Your task to perform on an android device: manage bookmarks in the chrome app Image 0: 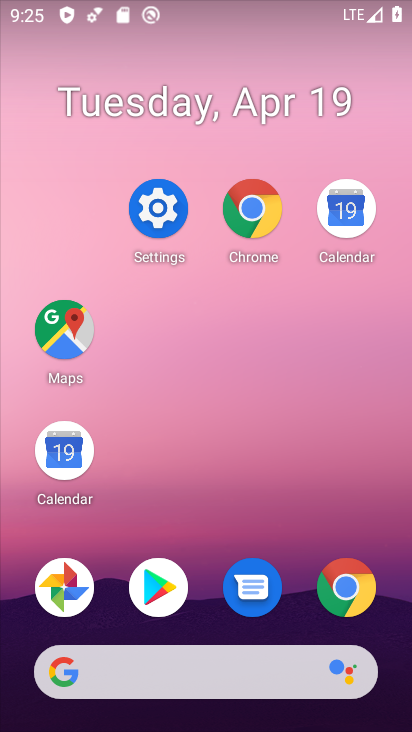
Step 0: drag from (274, 699) to (189, 251)
Your task to perform on an android device: manage bookmarks in the chrome app Image 1: 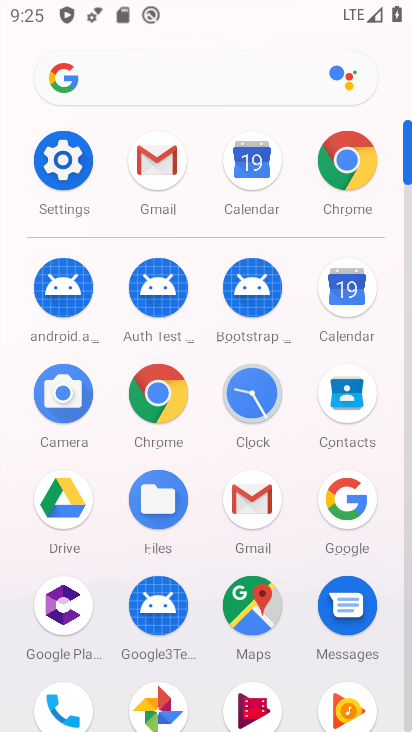
Step 1: click (345, 164)
Your task to perform on an android device: manage bookmarks in the chrome app Image 2: 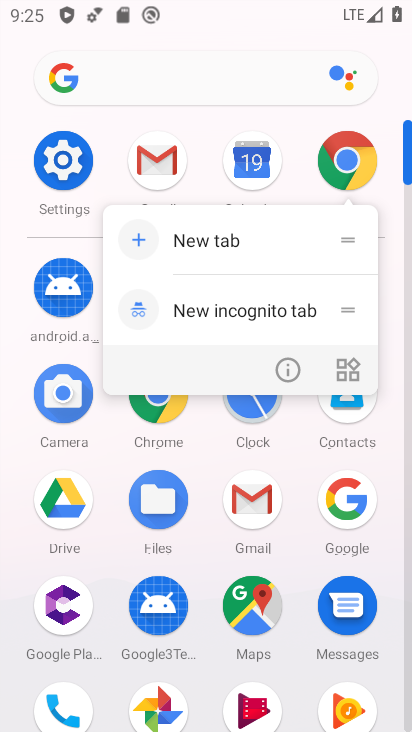
Step 2: click (345, 164)
Your task to perform on an android device: manage bookmarks in the chrome app Image 3: 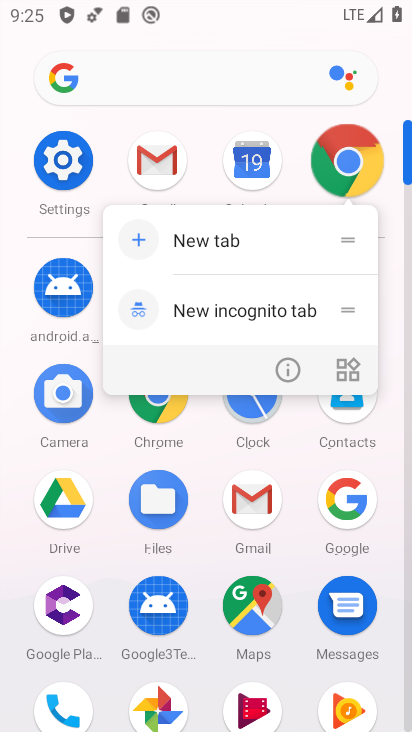
Step 3: click (345, 164)
Your task to perform on an android device: manage bookmarks in the chrome app Image 4: 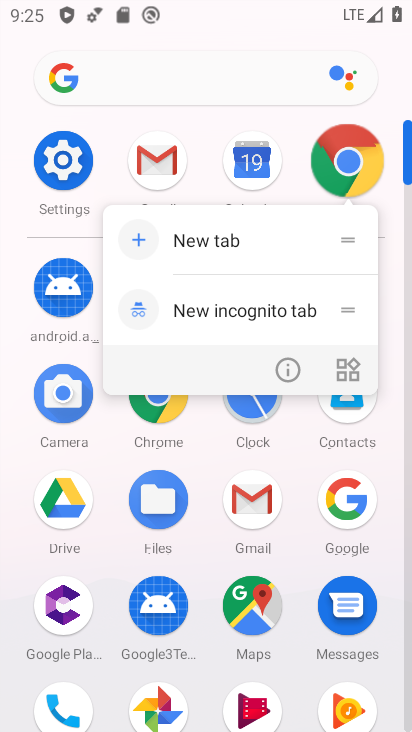
Step 4: click (345, 164)
Your task to perform on an android device: manage bookmarks in the chrome app Image 5: 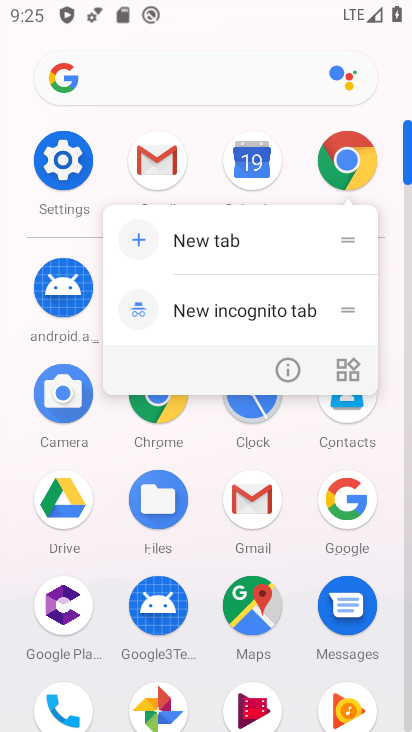
Step 5: click (345, 164)
Your task to perform on an android device: manage bookmarks in the chrome app Image 6: 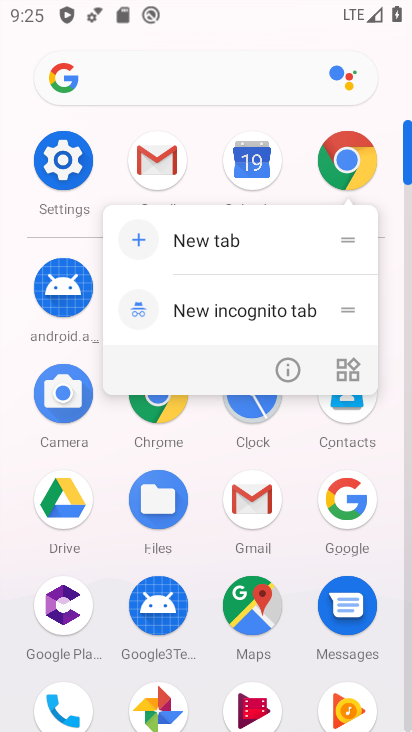
Step 6: click (345, 164)
Your task to perform on an android device: manage bookmarks in the chrome app Image 7: 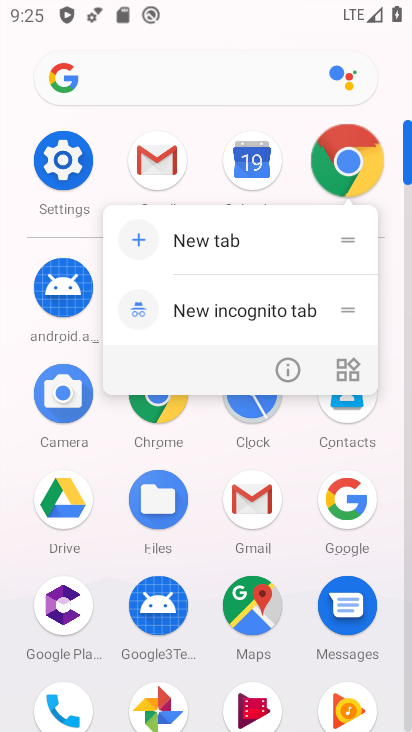
Step 7: click (345, 164)
Your task to perform on an android device: manage bookmarks in the chrome app Image 8: 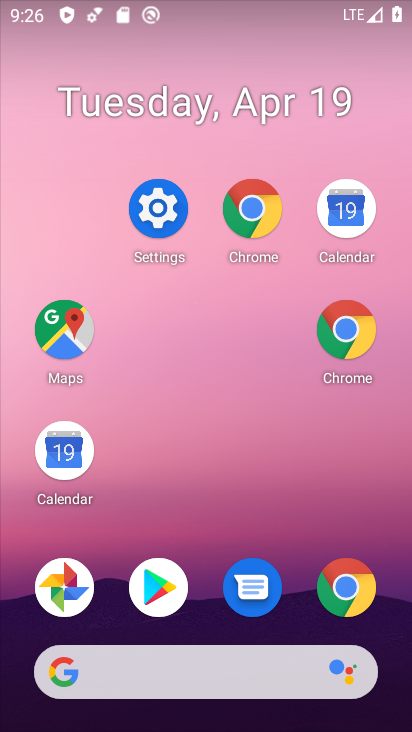
Step 8: click (338, 581)
Your task to perform on an android device: manage bookmarks in the chrome app Image 9: 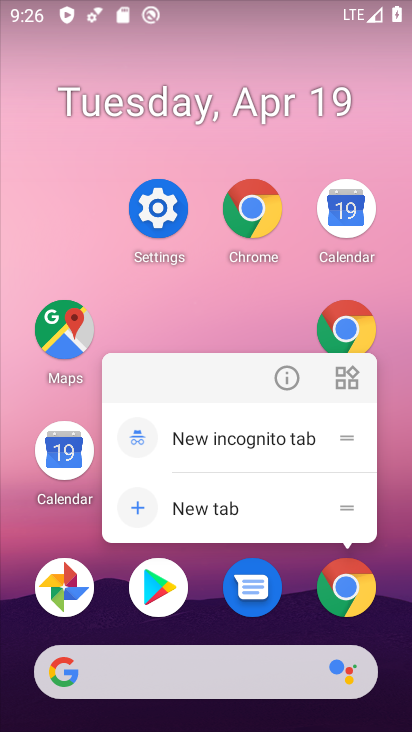
Step 9: click (350, 336)
Your task to perform on an android device: manage bookmarks in the chrome app Image 10: 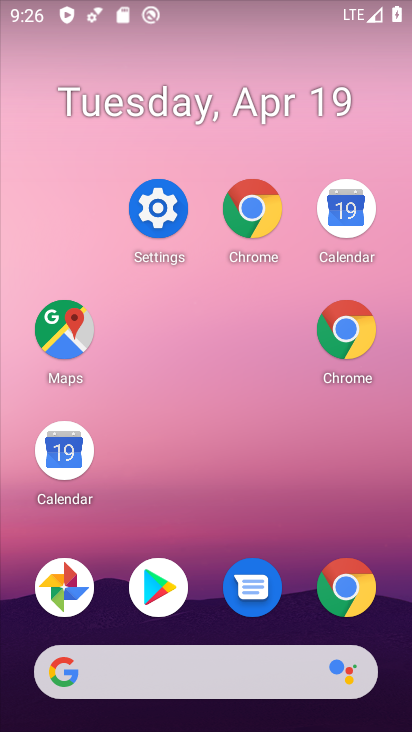
Step 10: click (350, 336)
Your task to perform on an android device: manage bookmarks in the chrome app Image 11: 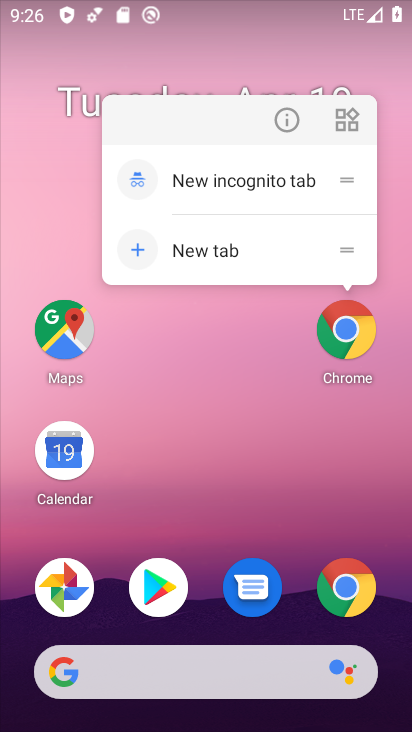
Step 11: drag from (365, 555) to (182, 32)
Your task to perform on an android device: manage bookmarks in the chrome app Image 12: 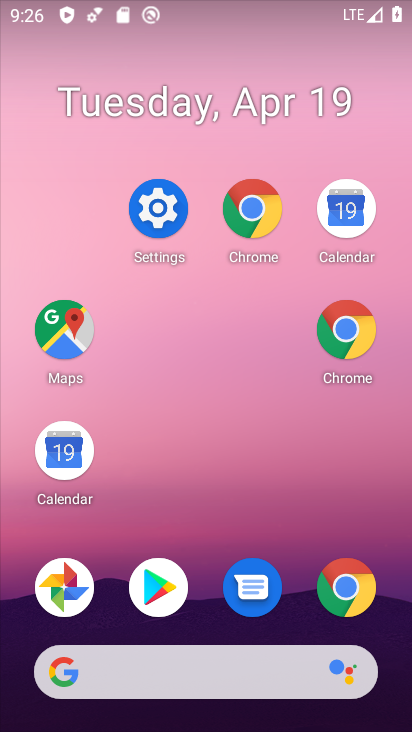
Step 12: click (340, 321)
Your task to perform on an android device: manage bookmarks in the chrome app Image 13: 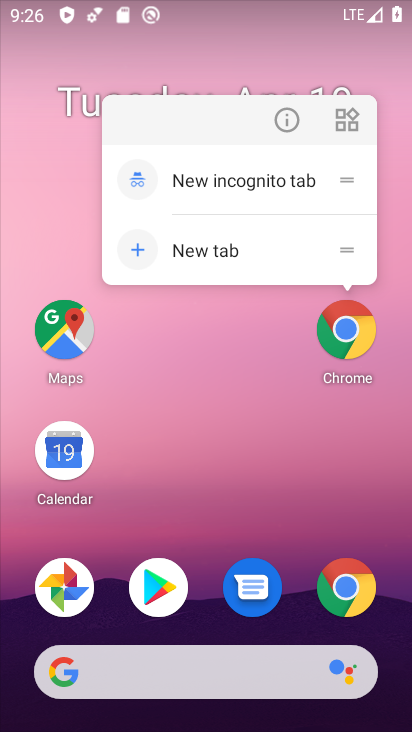
Step 13: click (349, 330)
Your task to perform on an android device: manage bookmarks in the chrome app Image 14: 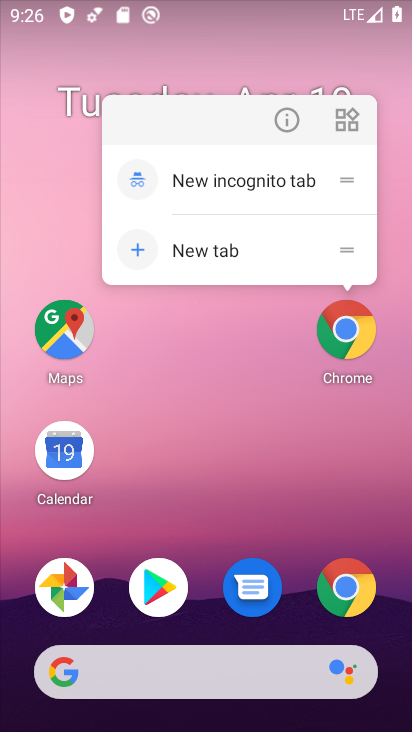
Step 14: click (264, 423)
Your task to perform on an android device: manage bookmarks in the chrome app Image 15: 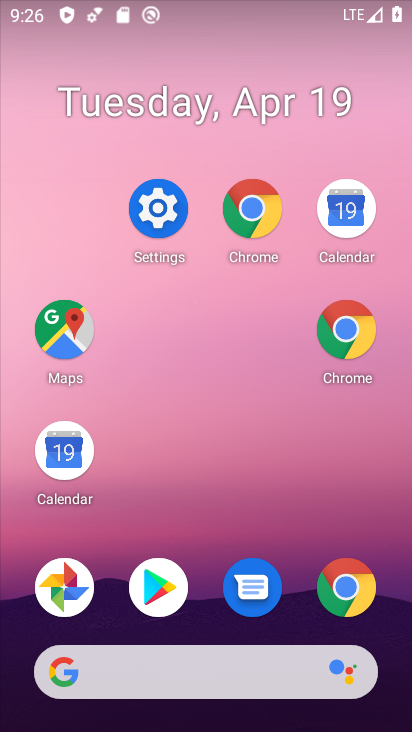
Step 15: click (263, 422)
Your task to perform on an android device: manage bookmarks in the chrome app Image 16: 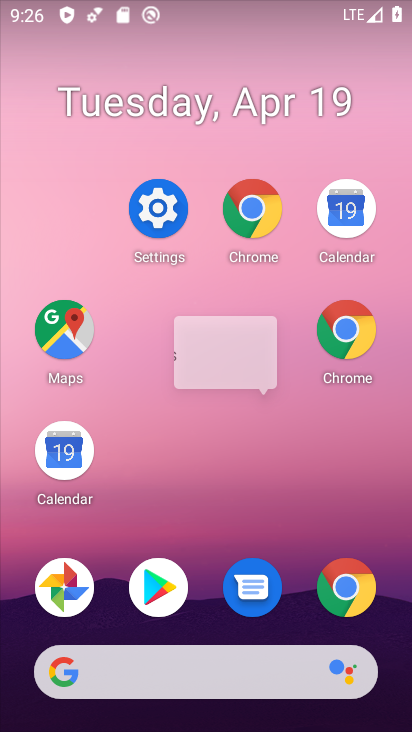
Step 16: click (166, 27)
Your task to perform on an android device: manage bookmarks in the chrome app Image 17: 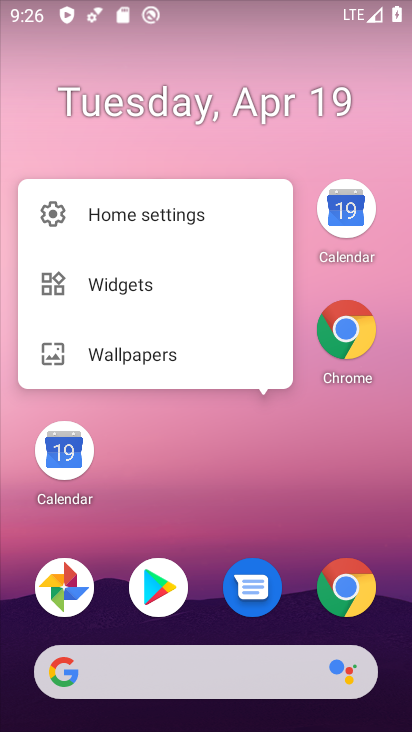
Step 17: click (101, 242)
Your task to perform on an android device: manage bookmarks in the chrome app Image 18: 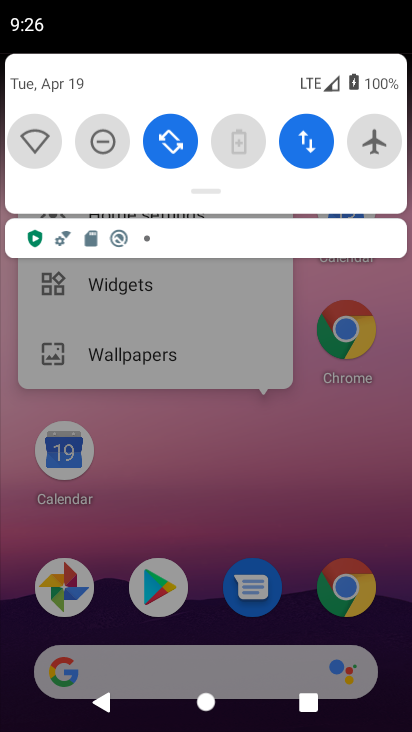
Step 18: drag from (340, 467) to (200, 58)
Your task to perform on an android device: manage bookmarks in the chrome app Image 19: 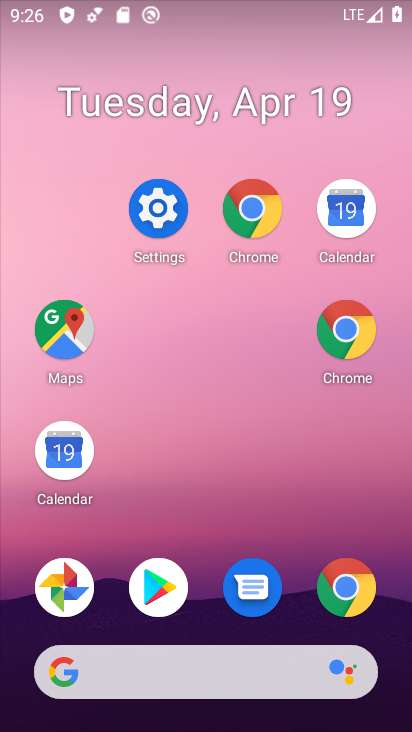
Step 19: drag from (275, 476) to (126, 139)
Your task to perform on an android device: manage bookmarks in the chrome app Image 20: 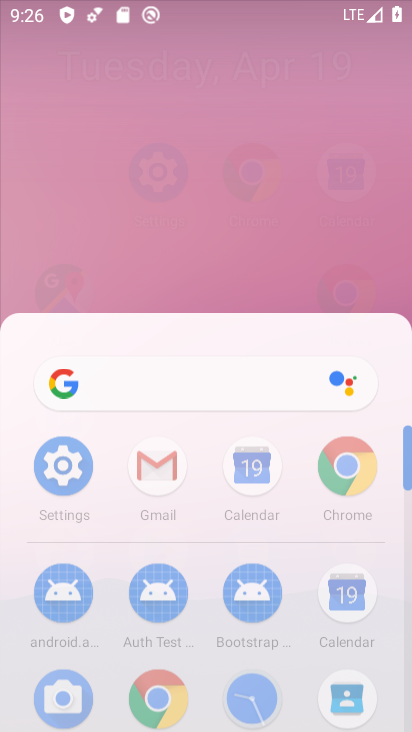
Step 20: drag from (322, 443) to (178, 119)
Your task to perform on an android device: manage bookmarks in the chrome app Image 21: 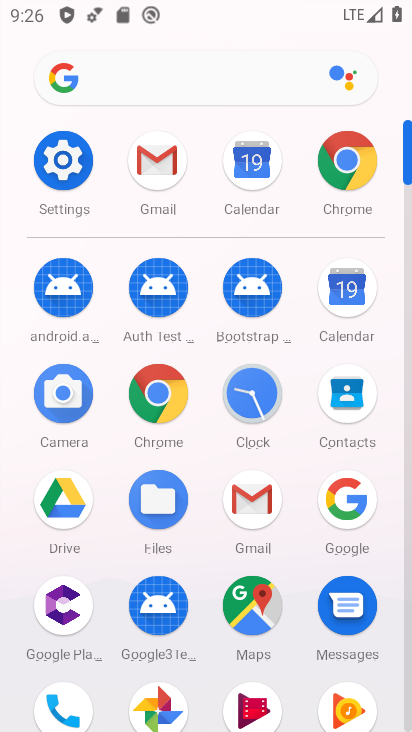
Step 21: click (352, 172)
Your task to perform on an android device: manage bookmarks in the chrome app Image 22: 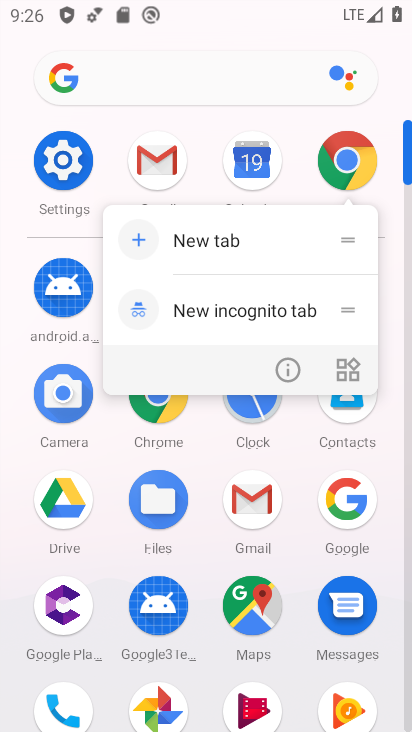
Step 22: click (352, 172)
Your task to perform on an android device: manage bookmarks in the chrome app Image 23: 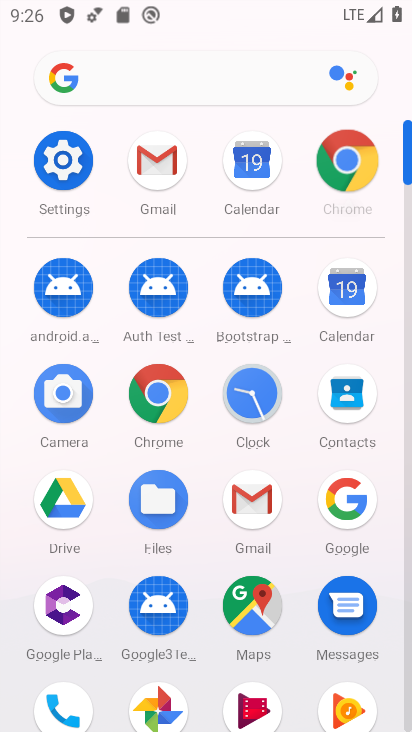
Step 23: click (374, 147)
Your task to perform on an android device: manage bookmarks in the chrome app Image 24: 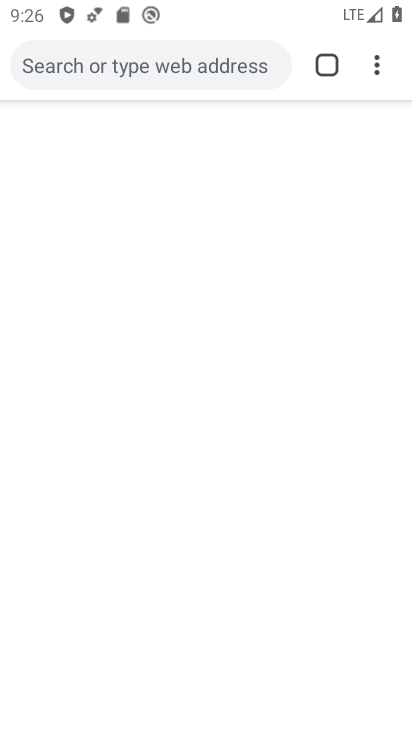
Step 24: click (341, 156)
Your task to perform on an android device: manage bookmarks in the chrome app Image 25: 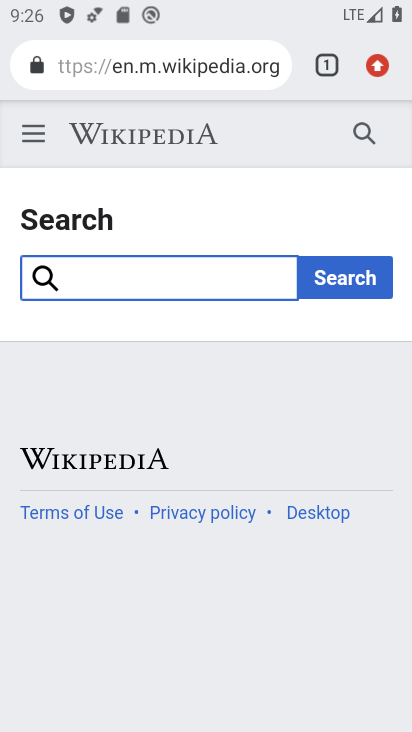
Step 25: press back button
Your task to perform on an android device: manage bookmarks in the chrome app Image 26: 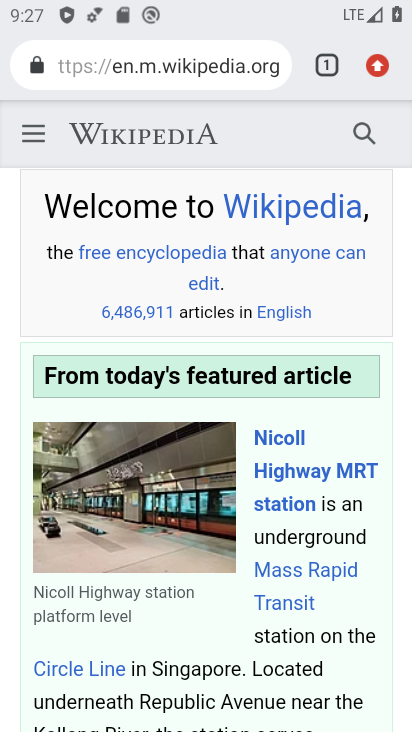
Step 26: press back button
Your task to perform on an android device: manage bookmarks in the chrome app Image 27: 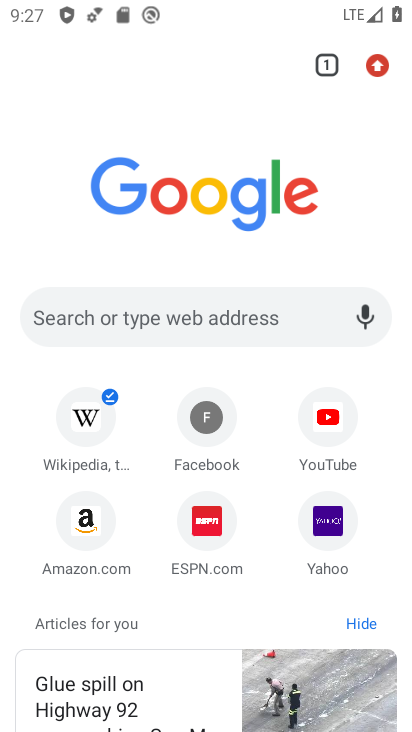
Step 27: click (383, 53)
Your task to perform on an android device: manage bookmarks in the chrome app Image 28: 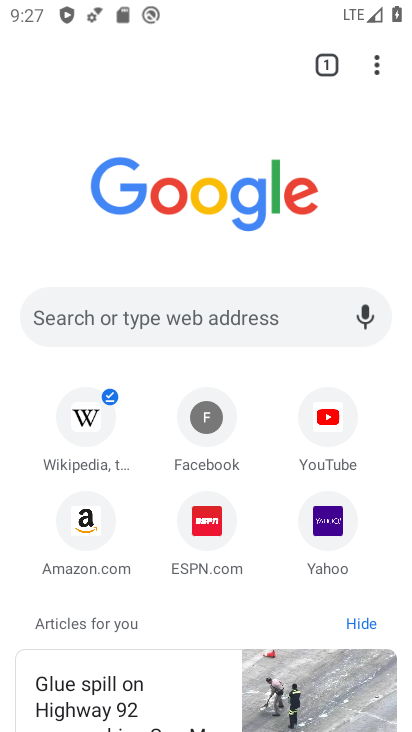
Step 28: click (375, 62)
Your task to perform on an android device: manage bookmarks in the chrome app Image 29: 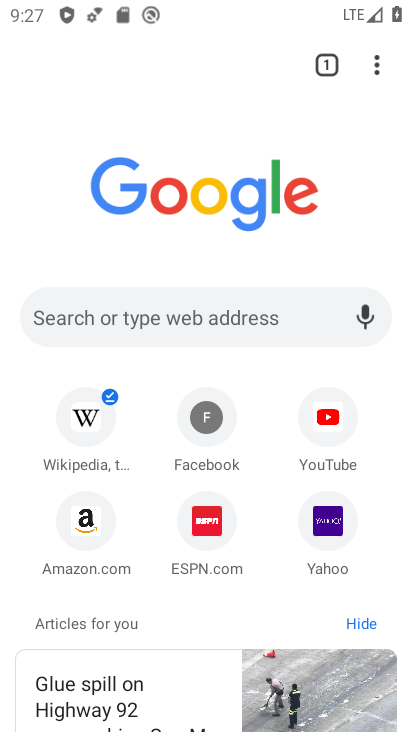
Step 29: click (376, 62)
Your task to perform on an android device: manage bookmarks in the chrome app Image 30: 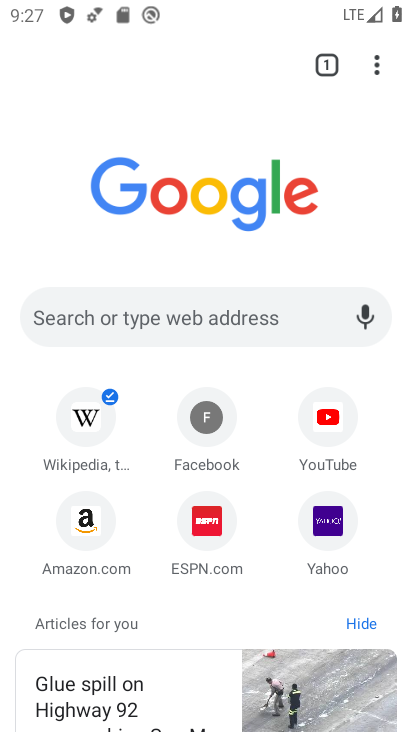
Step 30: click (376, 62)
Your task to perform on an android device: manage bookmarks in the chrome app Image 31: 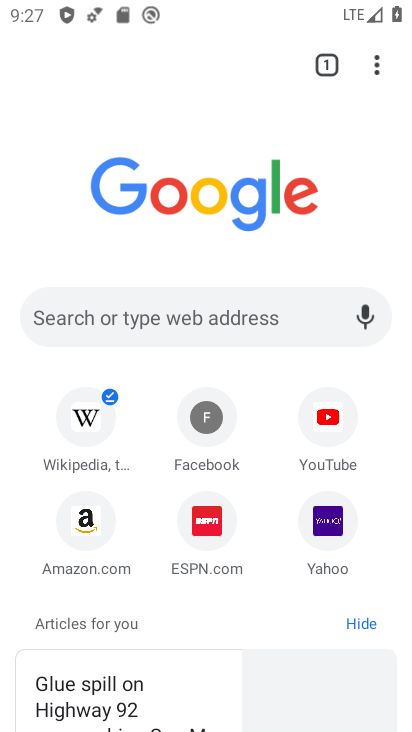
Step 31: click (178, 326)
Your task to perform on an android device: manage bookmarks in the chrome app Image 32: 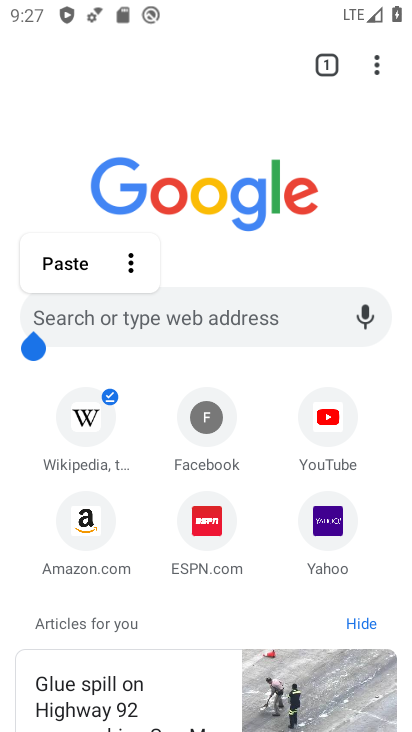
Step 32: drag from (375, 68) to (125, 323)
Your task to perform on an android device: manage bookmarks in the chrome app Image 33: 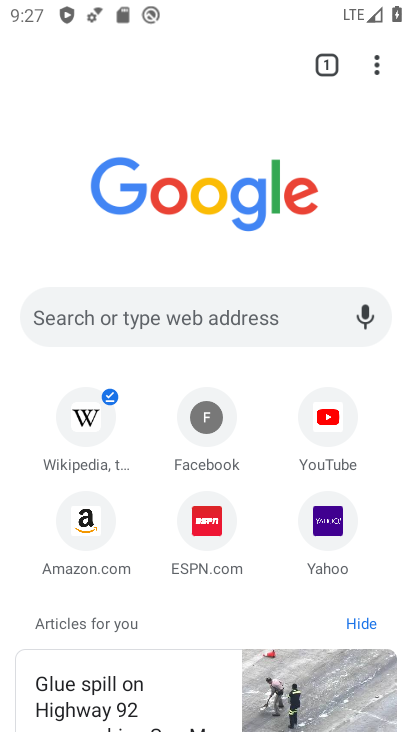
Step 33: drag from (125, 323) to (375, 68)
Your task to perform on an android device: manage bookmarks in the chrome app Image 34: 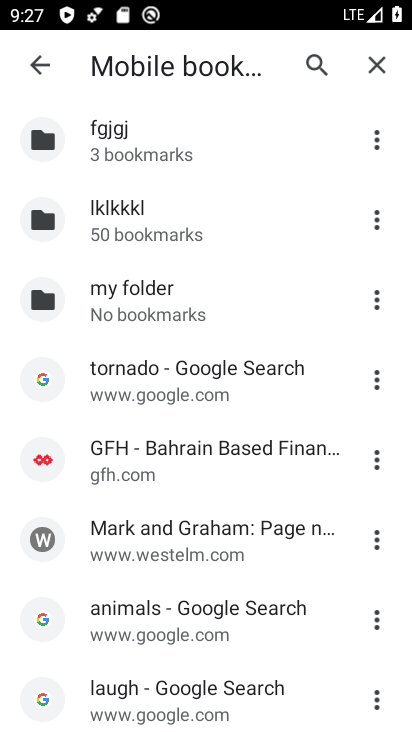
Step 34: click (372, 140)
Your task to perform on an android device: manage bookmarks in the chrome app Image 35: 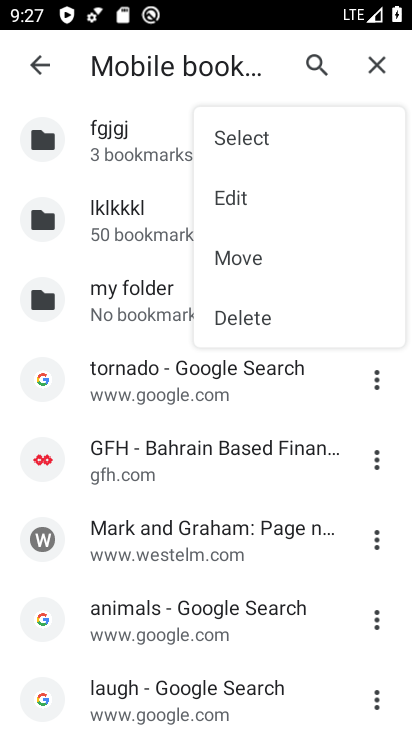
Step 35: click (241, 316)
Your task to perform on an android device: manage bookmarks in the chrome app Image 36: 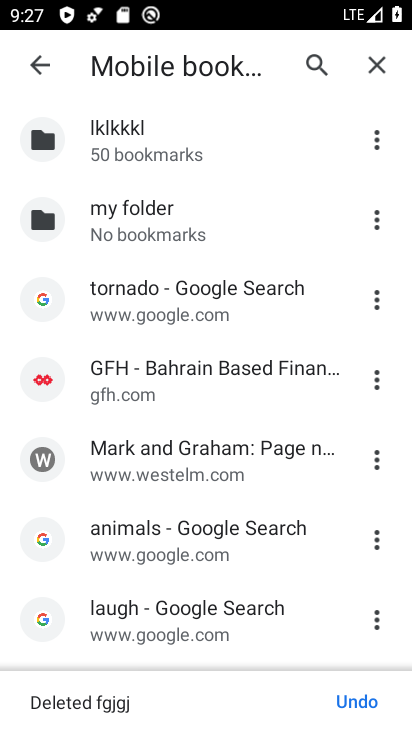
Step 36: click (233, 311)
Your task to perform on an android device: manage bookmarks in the chrome app Image 37: 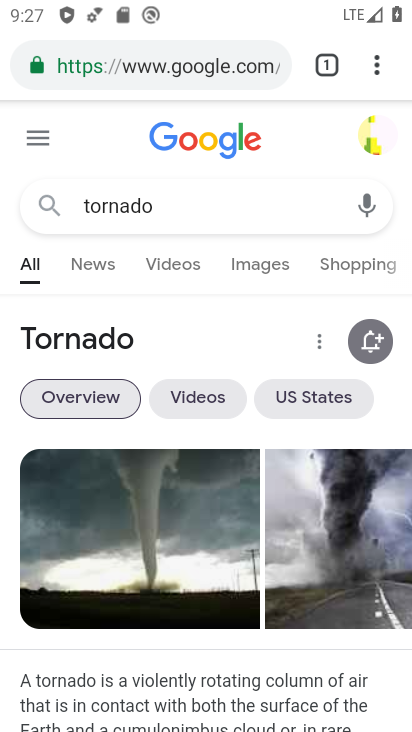
Step 37: task complete